Your task to perform on an android device: Go to display settings Image 0: 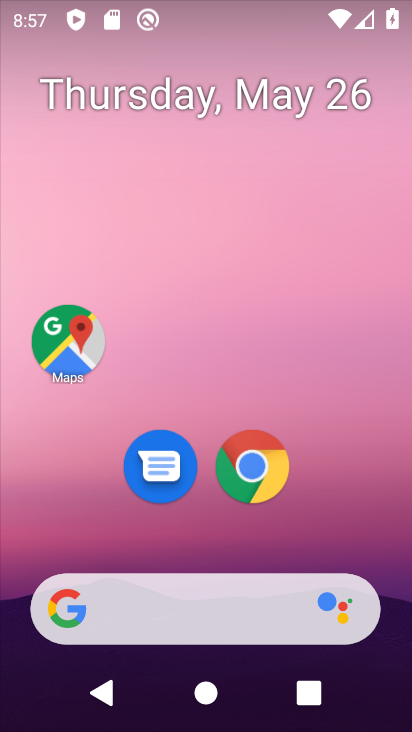
Step 0: drag from (345, 476) to (251, 58)
Your task to perform on an android device: Go to display settings Image 1: 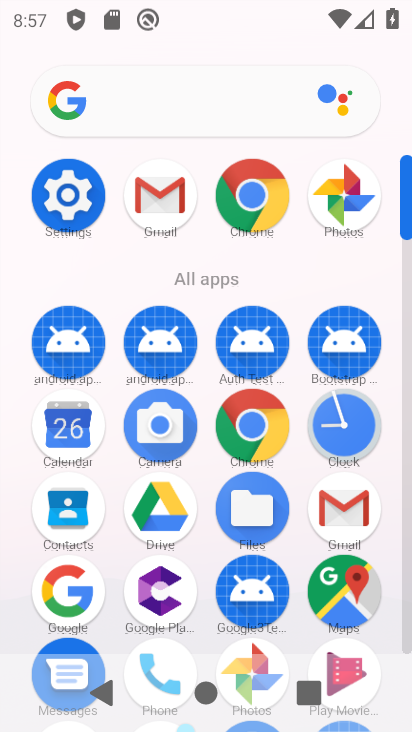
Step 1: click (63, 198)
Your task to perform on an android device: Go to display settings Image 2: 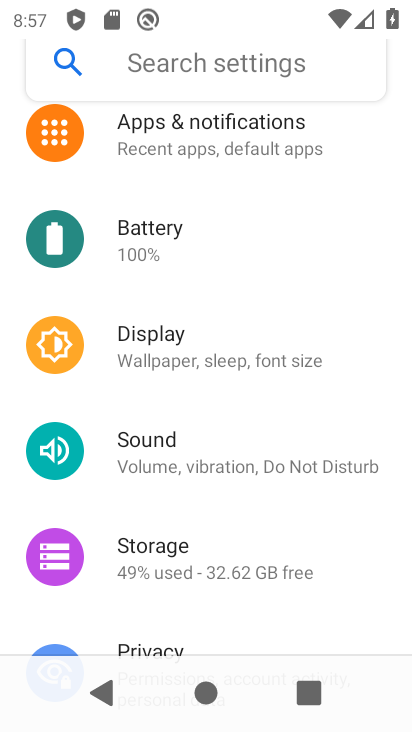
Step 2: click (152, 342)
Your task to perform on an android device: Go to display settings Image 3: 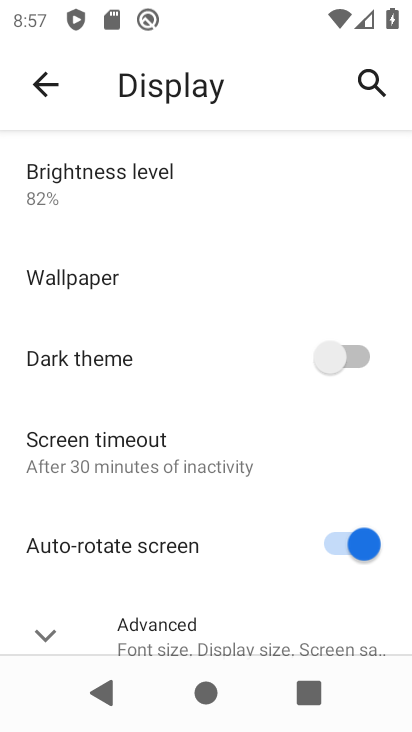
Step 3: task complete